Your task to perform on an android device: Open Google Chrome Image 0: 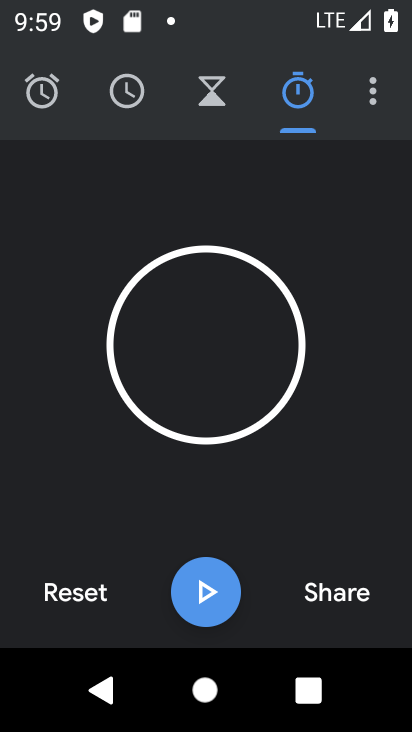
Step 0: press home button
Your task to perform on an android device: Open Google Chrome Image 1: 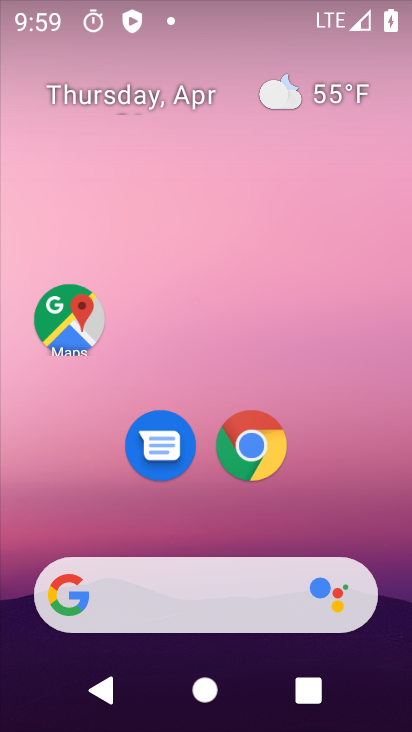
Step 1: click (249, 461)
Your task to perform on an android device: Open Google Chrome Image 2: 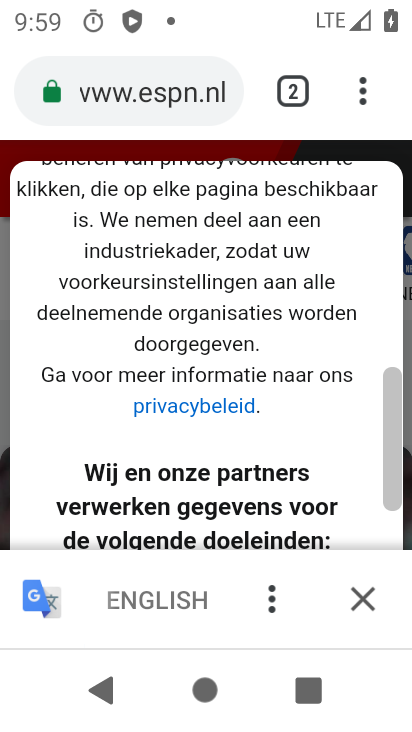
Step 2: task complete